Your task to perform on an android device: Open Google Chrome and open the bookmarks view Image 0: 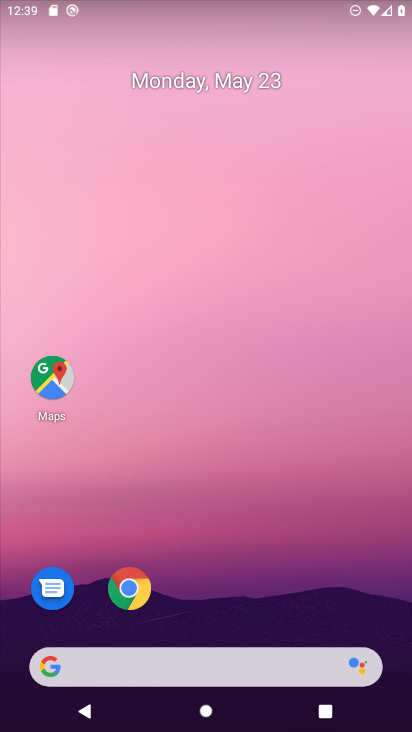
Step 0: click (126, 590)
Your task to perform on an android device: Open Google Chrome and open the bookmarks view Image 1: 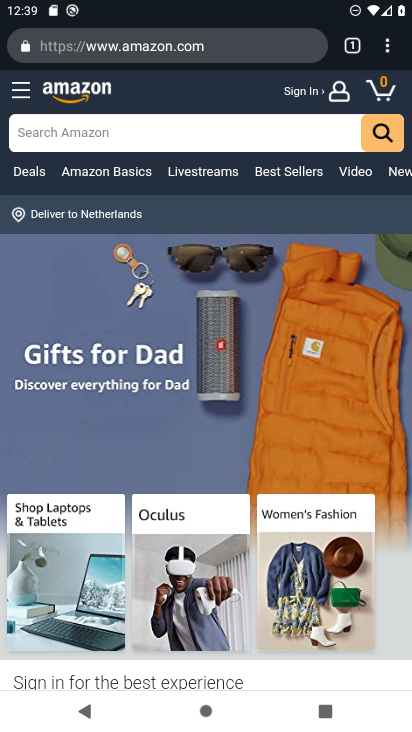
Step 1: click (386, 47)
Your task to perform on an android device: Open Google Chrome and open the bookmarks view Image 2: 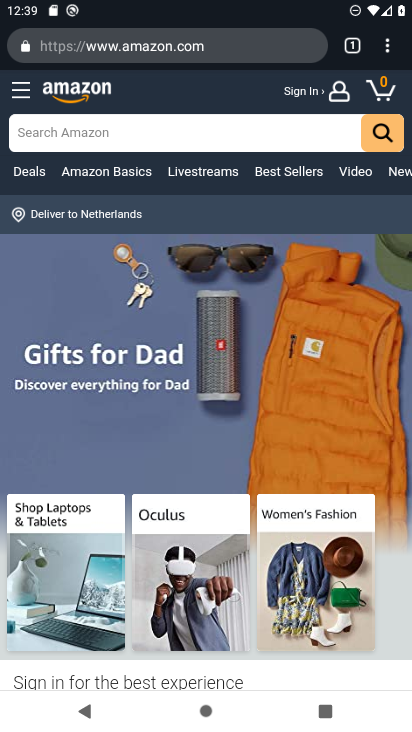
Step 2: click (382, 50)
Your task to perform on an android device: Open Google Chrome and open the bookmarks view Image 3: 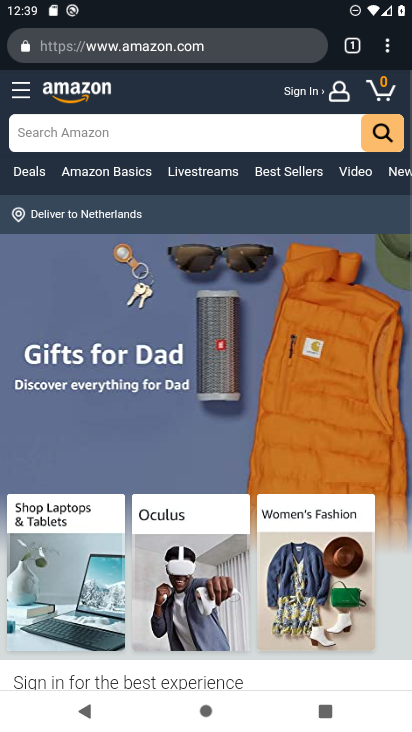
Step 3: click (391, 54)
Your task to perform on an android device: Open Google Chrome and open the bookmarks view Image 4: 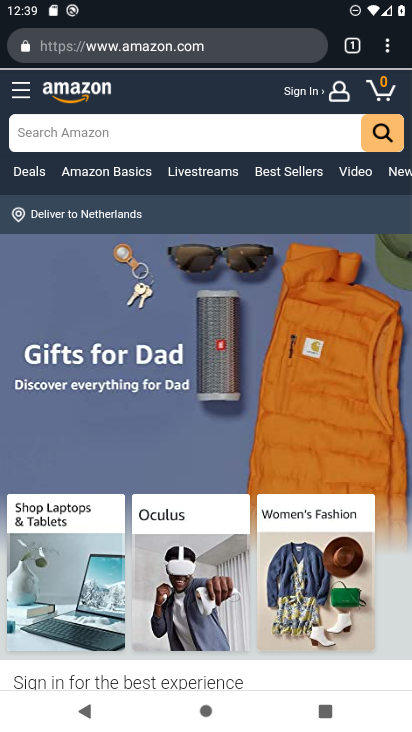
Step 4: click (390, 44)
Your task to perform on an android device: Open Google Chrome and open the bookmarks view Image 5: 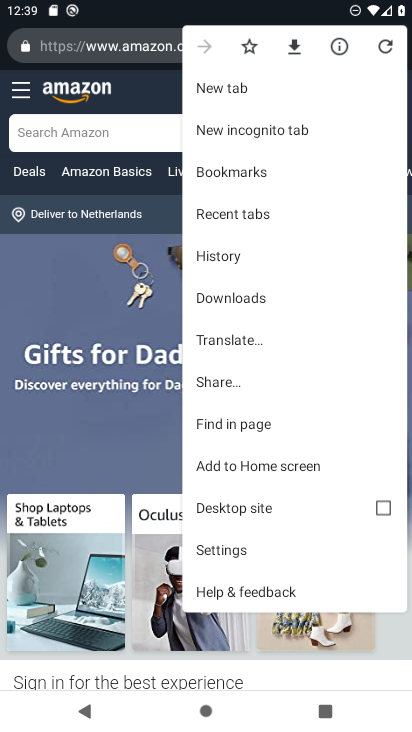
Step 5: click (242, 165)
Your task to perform on an android device: Open Google Chrome and open the bookmarks view Image 6: 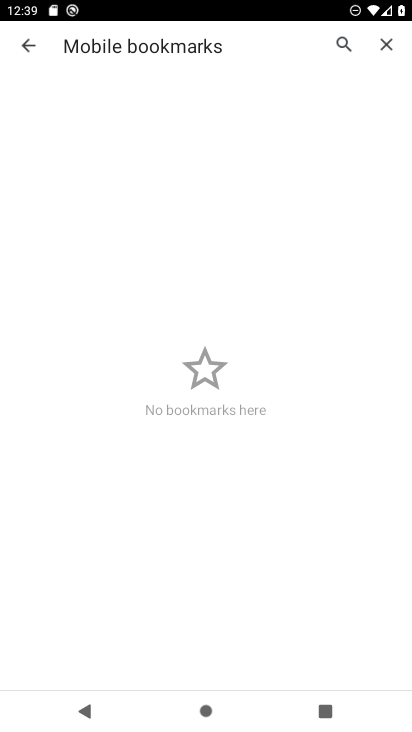
Step 6: task complete